Your task to perform on an android device: Show me recent news Image 0: 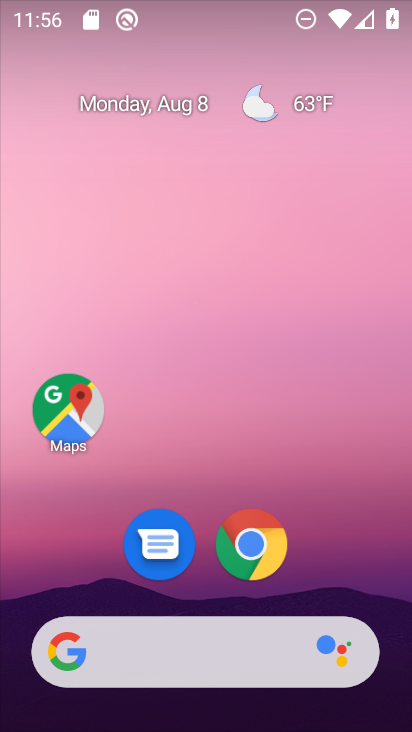
Step 0: drag from (200, 671) to (263, 75)
Your task to perform on an android device: Show me recent news Image 1: 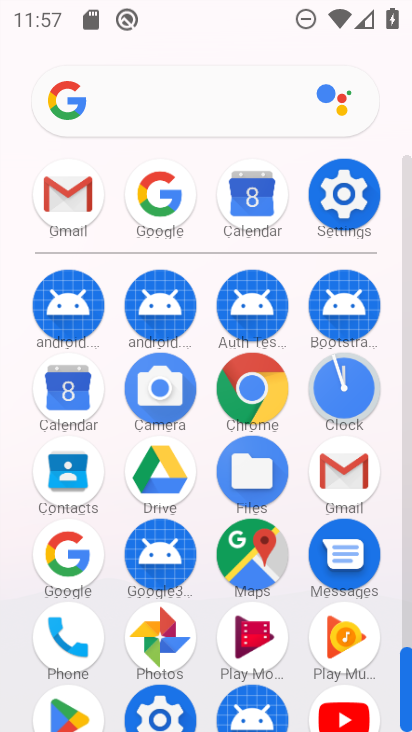
Step 1: click (157, 195)
Your task to perform on an android device: Show me recent news Image 2: 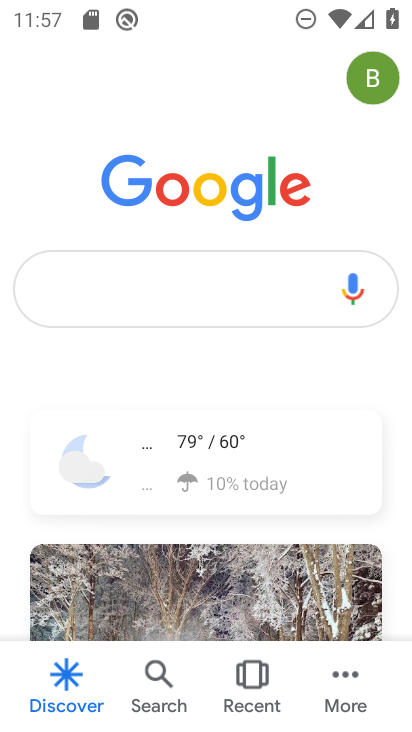
Step 2: click (180, 293)
Your task to perform on an android device: Show me recent news Image 3: 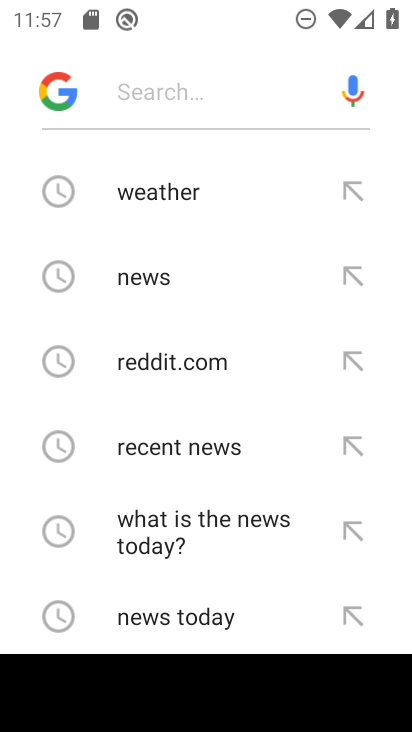
Step 3: type "recent news"
Your task to perform on an android device: Show me recent news Image 4: 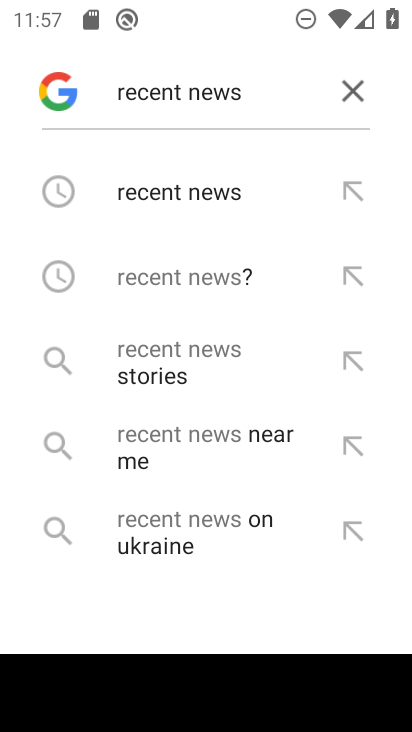
Step 4: click (214, 198)
Your task to perform on an android device: Show me recent news Image 5: 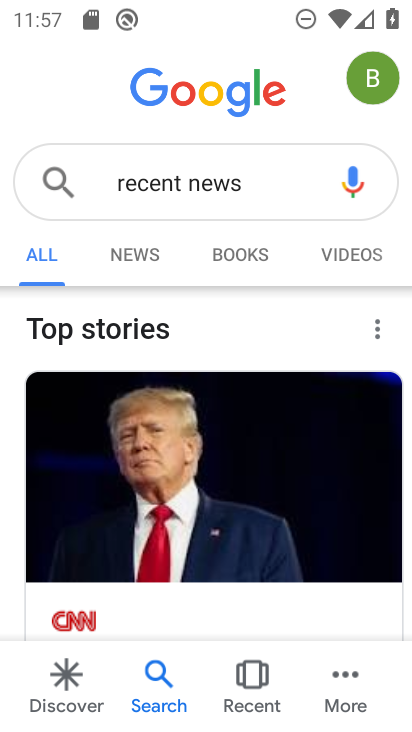
Step 5: drag from (238, 507) to (326, 262)
Your task to perform on an android device: Show me recent news Image 6: 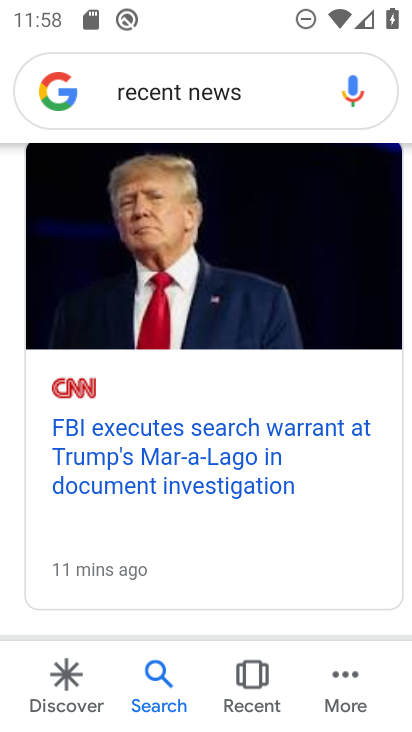
Step 6: click (178, 440)
Your task to perform on an android device: Show me recent news Image 7: 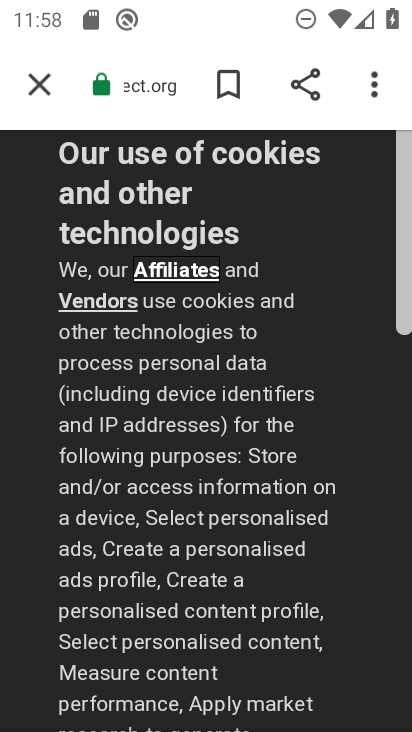
Step 7: task complete